Your task to perform on an android device: turn on sleep mode Image 0: 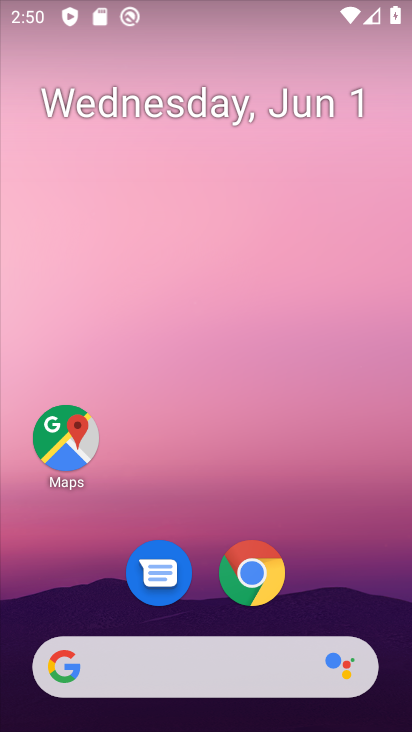
Step 0: drag from (381, 604) to (251, 154)
Your task to perform on an android device: turn on sleep mode Image 1: 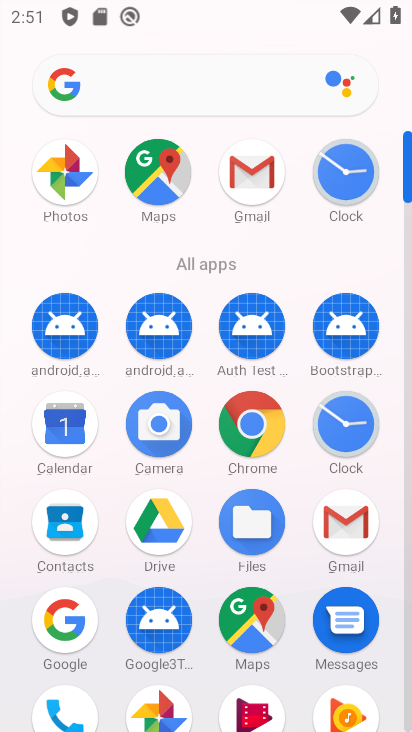
Step 1: click (406, 647)
Your task to perform on an android device: turn on sleep mode Image 2: 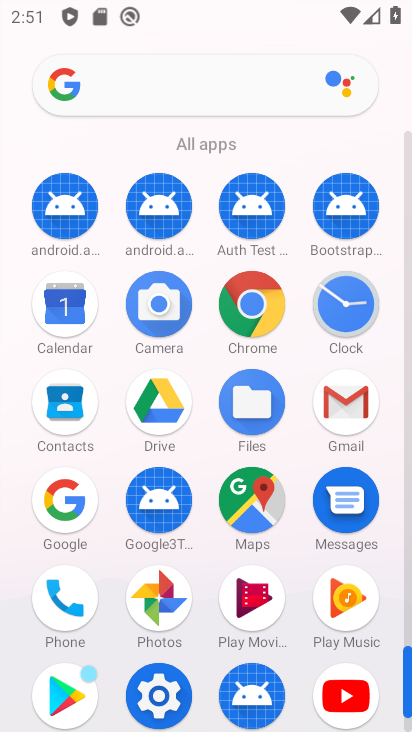
Step 2: click (168, 675)
Your task to perform on an android device: turn on sleep mode Image 3: 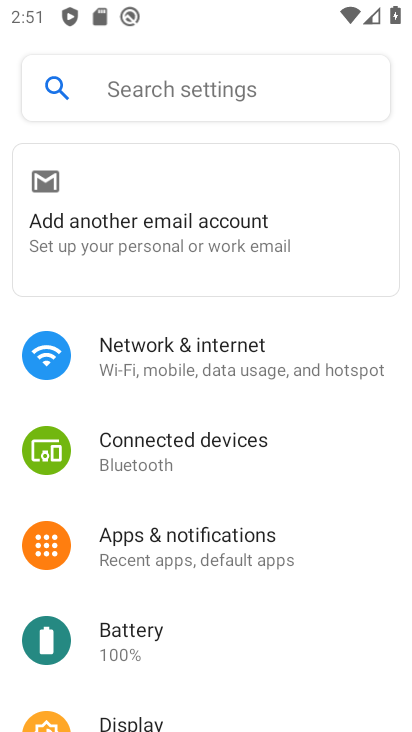
Step 3: drag from (217, 668) to (206, 438)
Your task to perform on an android device: turn on sleep mode Image 4: 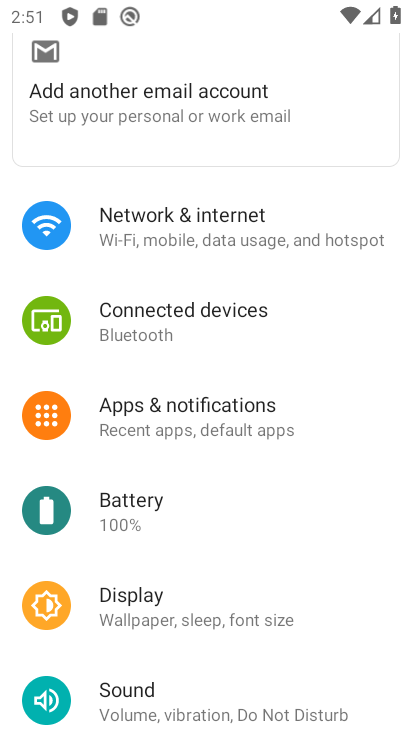
Step 4: click (248, 612)
Your task to perform on an android device: turn on sleep mode Image 5: 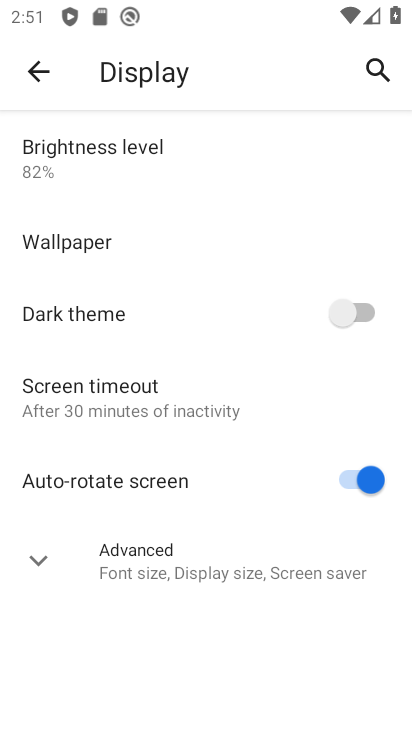
Step 5: click (252, 572)
Your task to perform on an android device: turn on sleep mode Image 6: 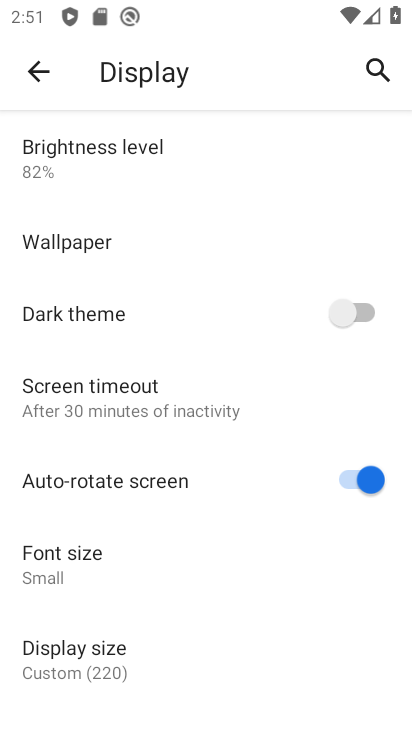
Step 6: task complete